Your task to perform on an android device: Open maps Image 0: 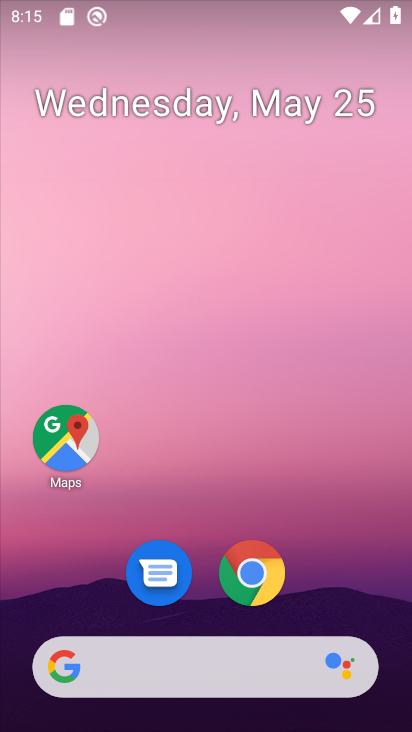
Step 0: click (63, 416)
Your task to perform on an android device: Open maps Image 1: 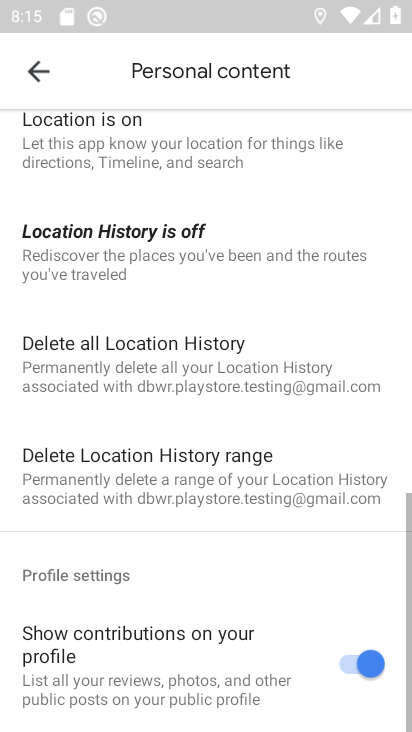
Step 1: click (37, 68)
Your task to perform on an android device: Open maps Image 2: 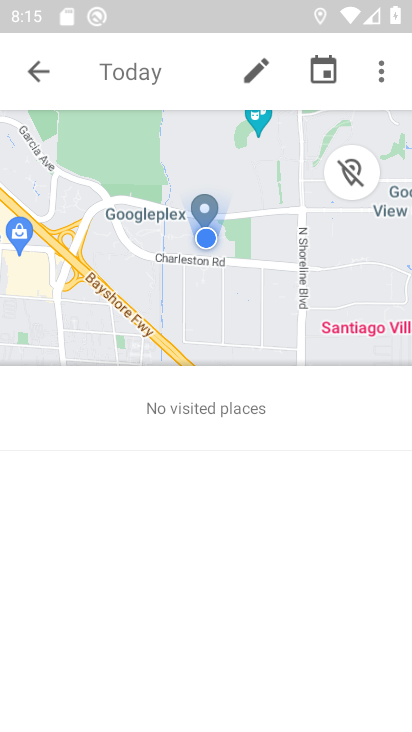
Step 2: task complete